Your task to perform on an android device: Go to sound settings Image 0: 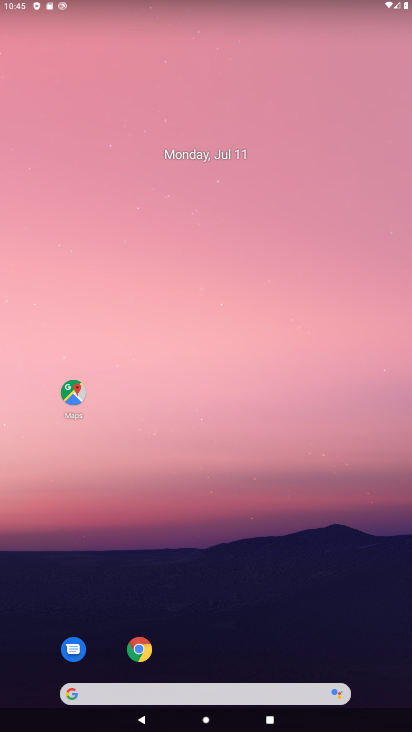
Step 0: drag from (194, 692) to (219, 2)
Your task to perform on an android device: Go to sound settings Image 1: 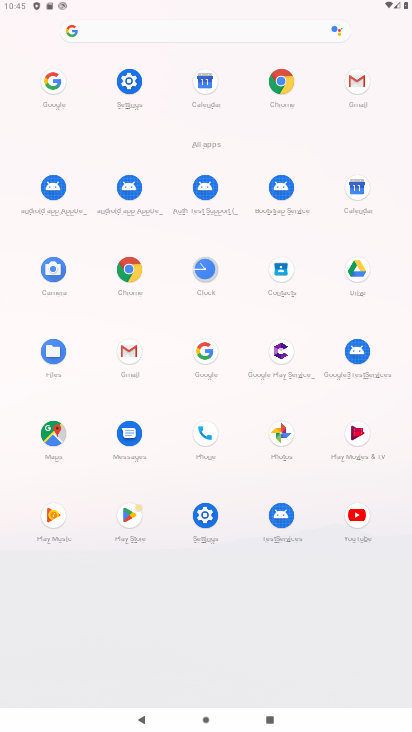
Step 1: click (129, 81)
Your task to perform on an android device: Go to sound settings Image 2: 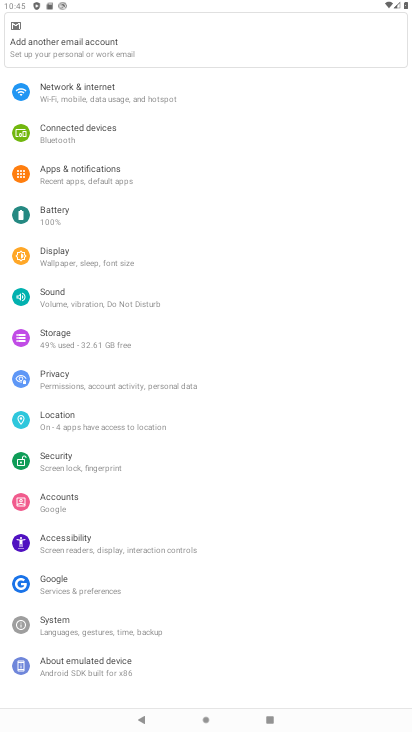
Step 2: click (61, 303)
Your task to perform on an android device: Go to sound settings Image 3: 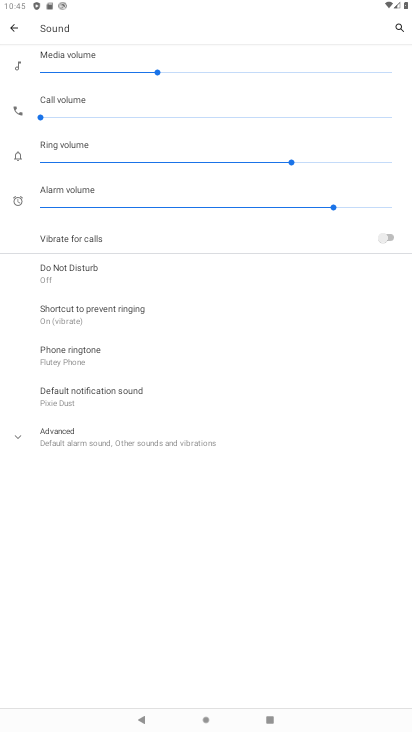
Step 3: task complete